Your task to perform on an android device: allow cookies in the chrome app Image 0: 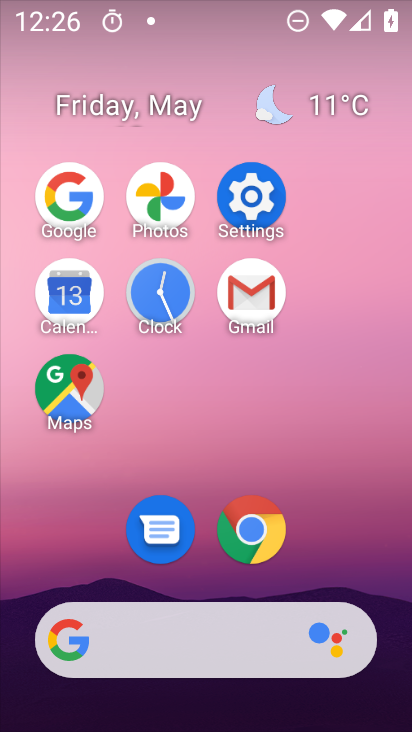
Step 0: click (265, 533)
Your task to perform on an android device: allow cookies in the chrome app Image 1: 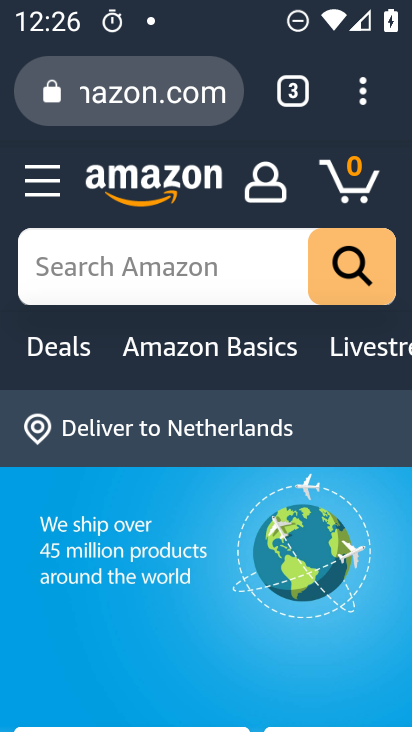
Step 1: click (364, 75)
Your task to perform on an android device: allow cookies in the chrome app Image 2: 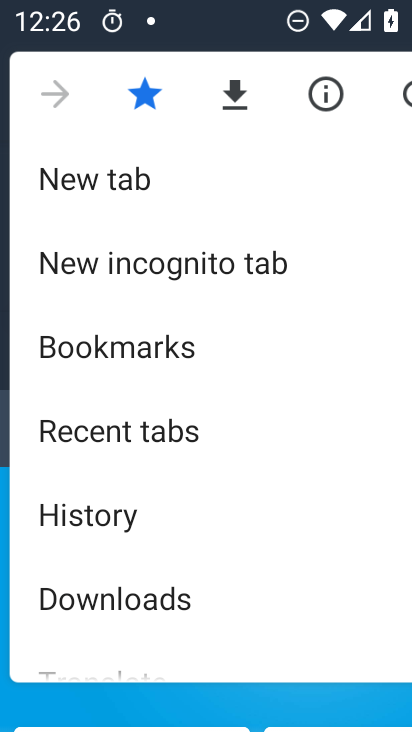
Step 2: drag from (295, 542) to (323, 73)
Your task to perform on an android device: allow cookies in the chrome app Image 3: 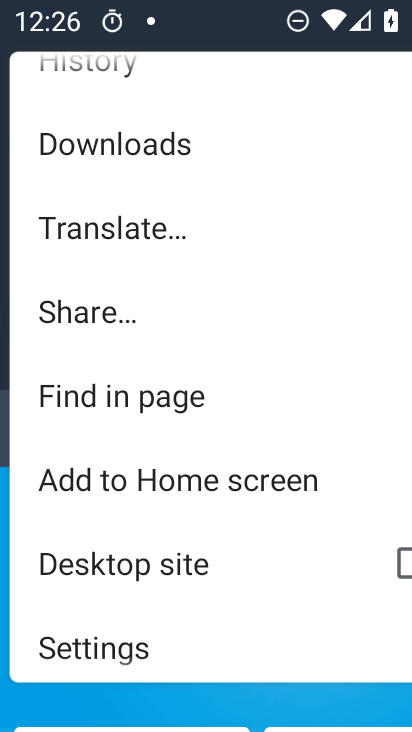
Step 3: click (158, 636)
Your task to perform on an android device: allow cookies in the chrome app Image 4: 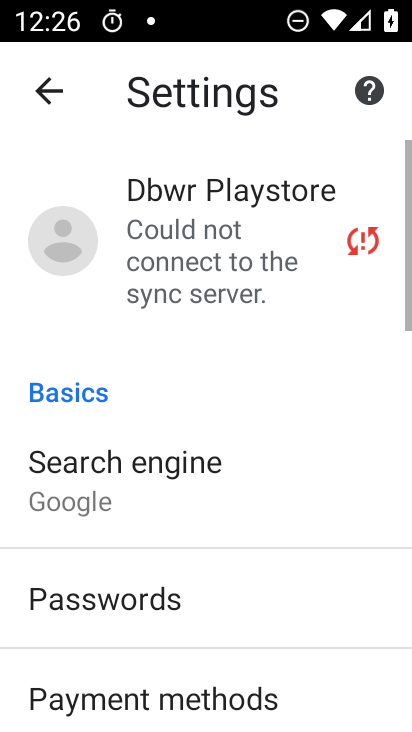
Step 4: drag from (241, 580) to (230, 188)
Your task to perform on an android device: allow cookies in the chrome app Image 5: 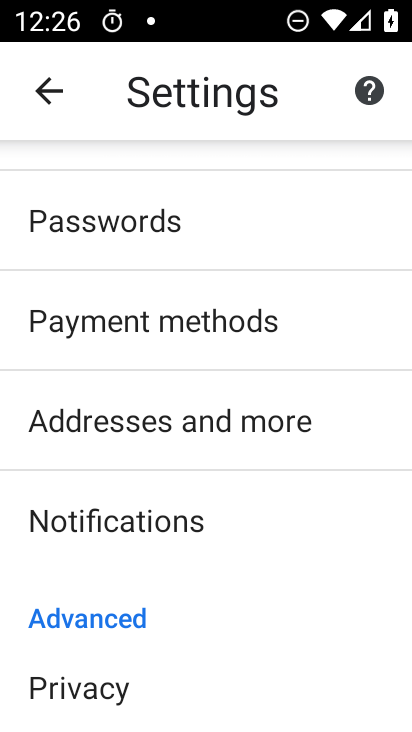
Step 5: drag from (255, 542) to (255, 234)
Your task to perform on an android device: allow cookies in the chrome app Image 6: 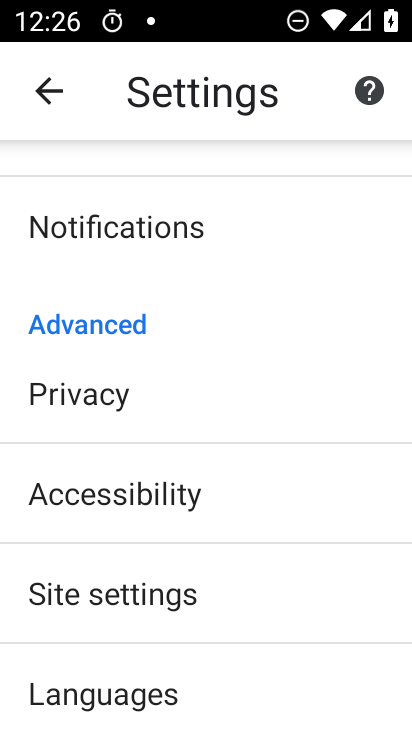
Step 6: click (155, 395)
Your task to perform on an android device: allow cookies in the chrome app Image 7: 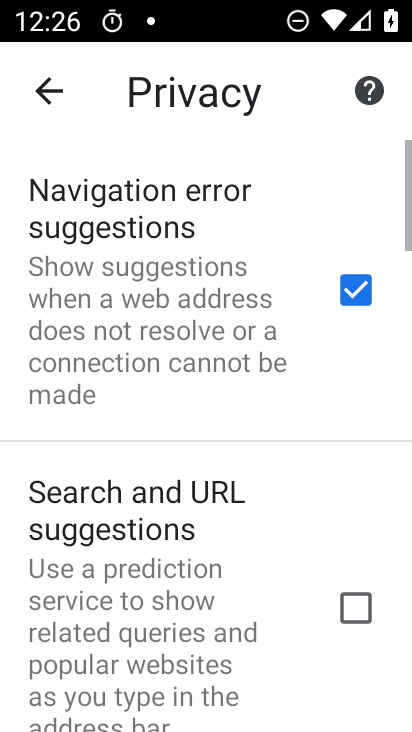
Step 7: drag from (266, 590) to (282, 163)
Your task to perform on an android device: allow cookies in the chrome app Image 8: 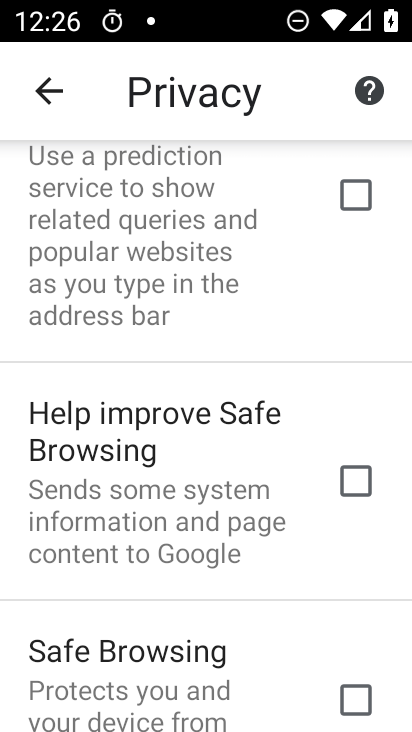
Step 8: drag from (240, 546) to (277, 136)
Your task to perform on an android device: allow cookies in the chrome app Image 9: 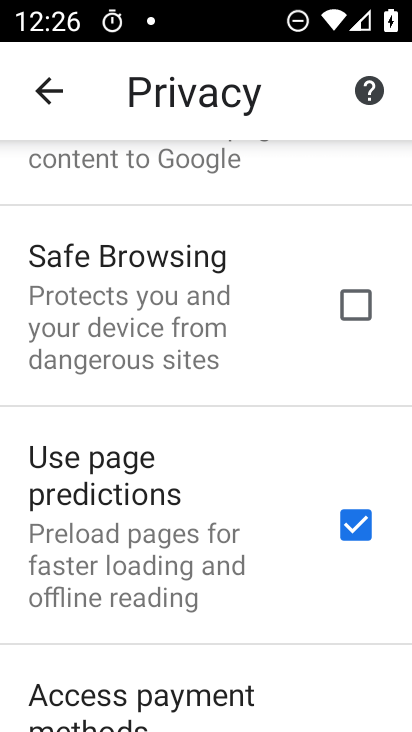
Step 9: drag from (230, 539) to (277, 125)
Your task to perform on an android device: allow cookies in the chrome app Image 10: 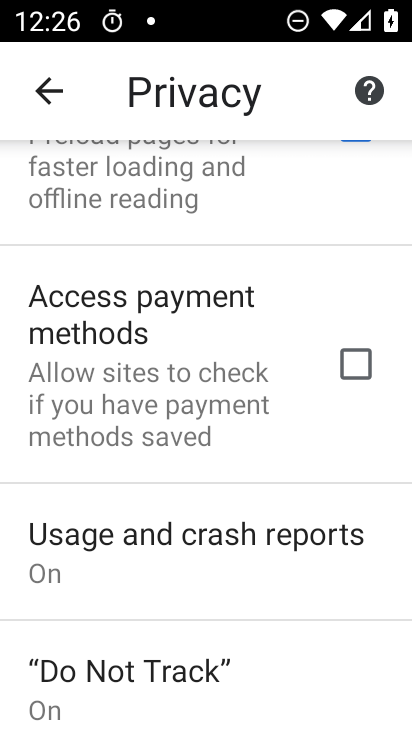
Step 10: drag from (327, 602) to (328, 166)
Your task to perform on an android device: allow cookies in the chrome app Image 11: 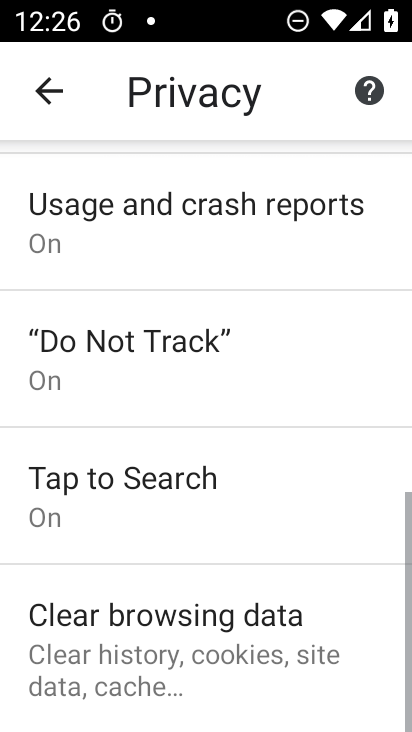
Step 11: drag from (315, 585) to (319, 249)
Your task to perform on an android device: allow cookies in the chrome app Image 12: 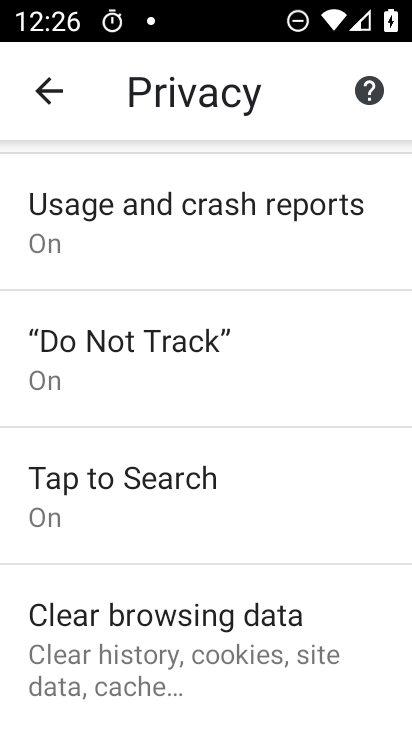
Step 12: click (282, 632)
Your task to perform on an android device: allow cookies in the chrome app Image 13: 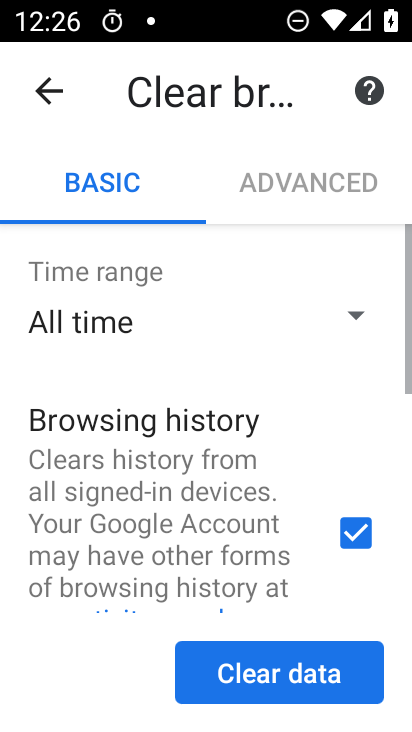
Step 13: drag from (293, 536) to (318, 228)
Your task to perform on an android device: allow cookies in the chrome app Image 14: 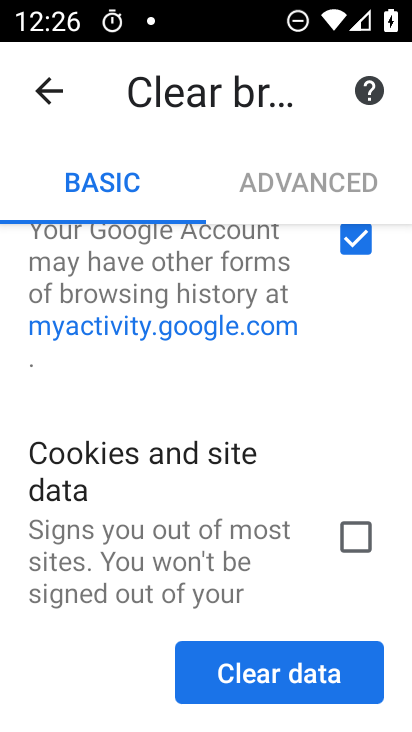
Step 14: click (354, 527)
Your task to perform on an android device: allow cookies in the chrome app Image 15: 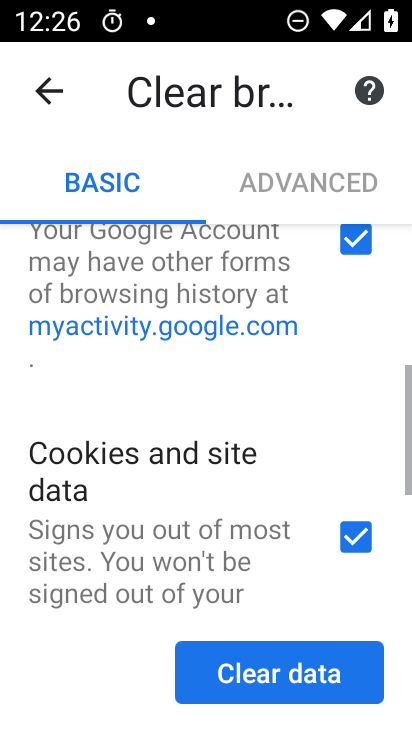
Step 15: click (313, 656)
Your task to perform on an android device: allow cookies in the chrome app Image 16: 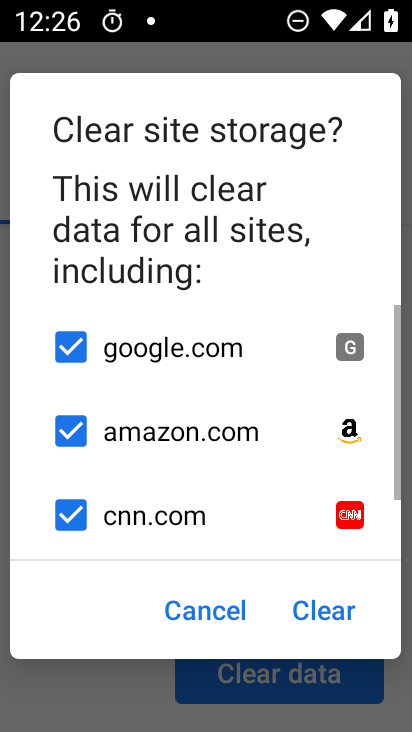
Step 16: task complete